Your task to perform on an android device: create a new album in the google photos Image 0: 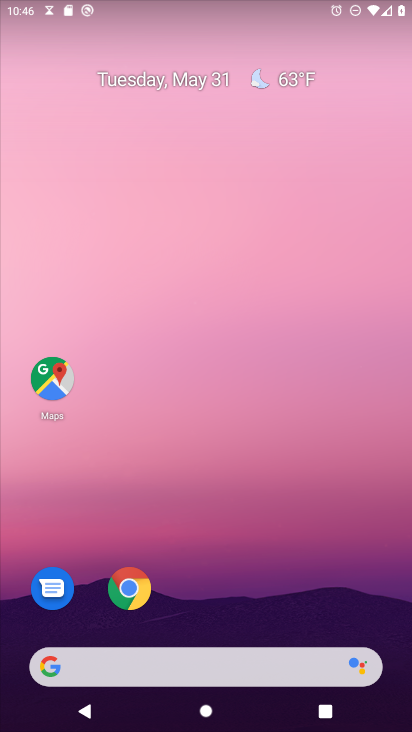
Step 0: drag from (254, 579) to (206, 102)
Your task to perform on an android device: create a new album in the google photos Image 1: 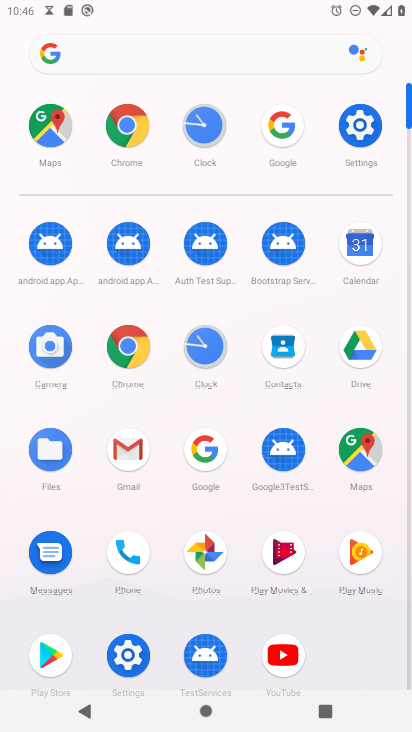
Step 1: click (206, 552)
Your task to perform on an android device: create a new album in the google photos Image 2: 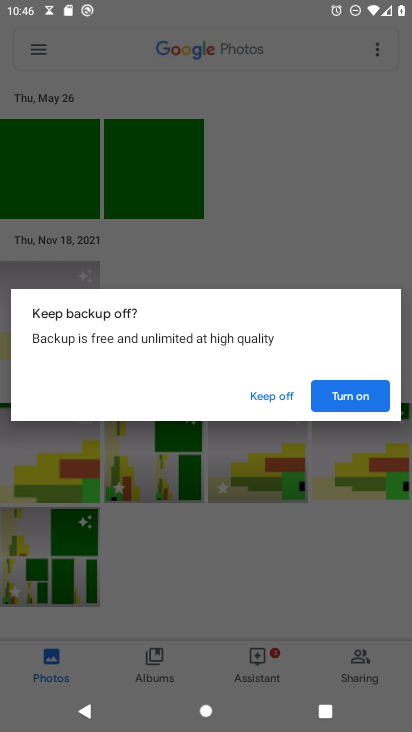
Step 2: click (352, 404)
Your task to perform on an android device: create a new album in the google photos Image 3: 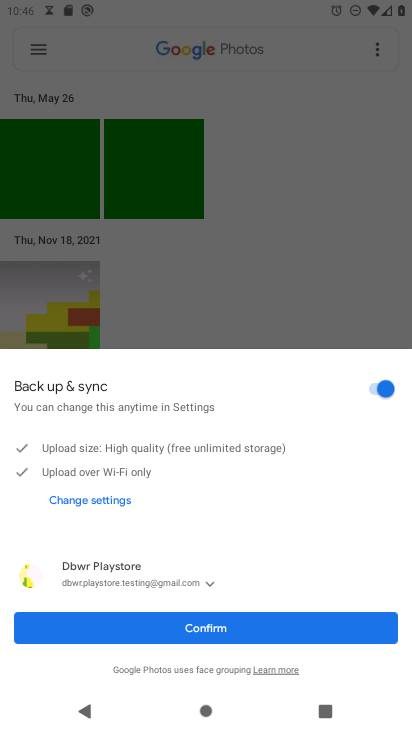
Step 3: click (208, 626)
Your task to perform on an android device: create a new album in the google photos Image 4: 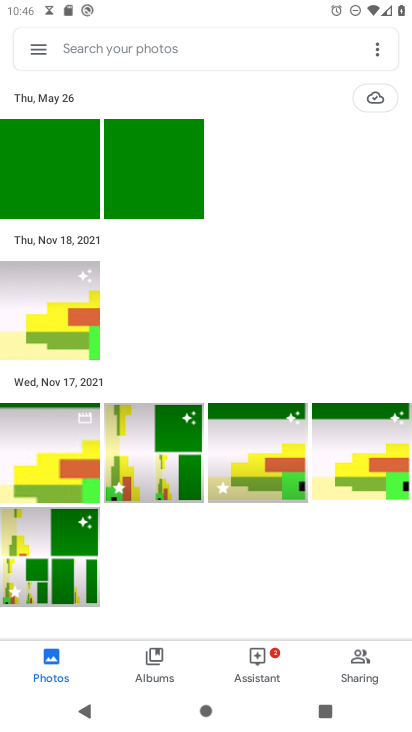
Step 4: click (380, 49)
Your task to perform on an android device: create a new album in the google photos Image 5: 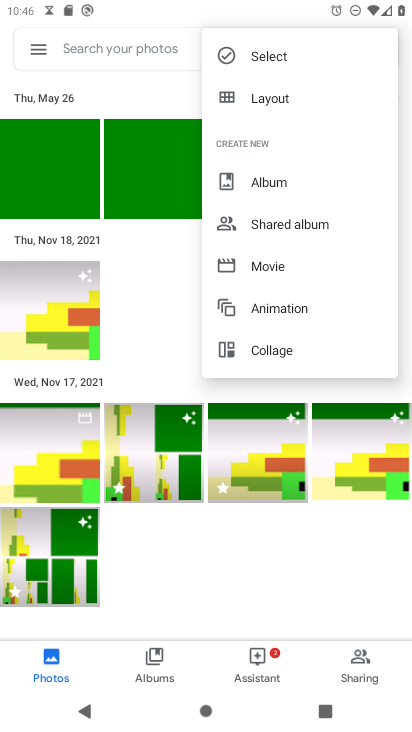
Step 5: click (267, 181)
Your task to perform on an android device: create a new album in the google photos Image 6: 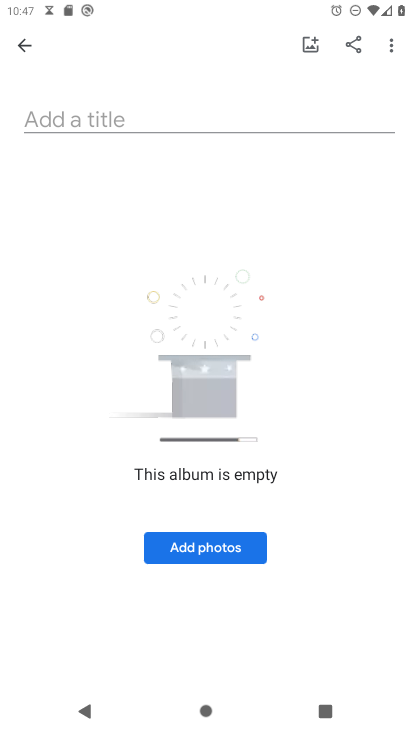
Step 6: click (254, 115)
Your task to perform on an android device: create a new album in the google photos Image 7: 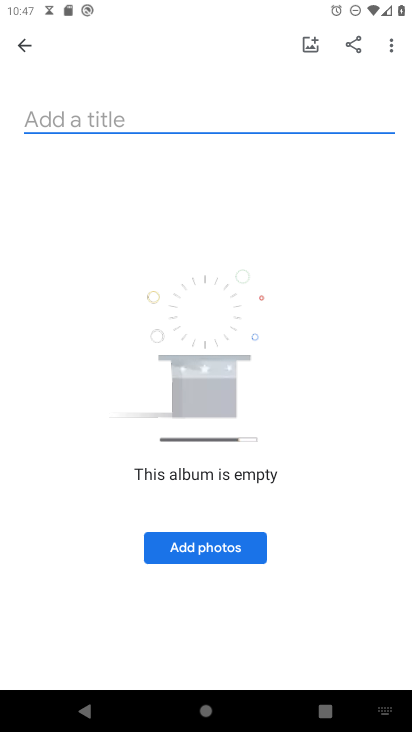
Step 7: type "Sweet"
Your task to perform on an android device: create a new album in the google photos Image 8: 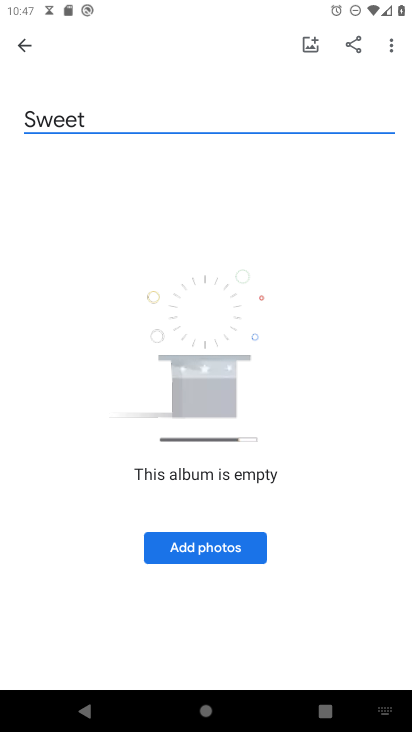
Step 8: click (210, 544)
Your task to perform on an android device: create a new album in the google photos Image 9: 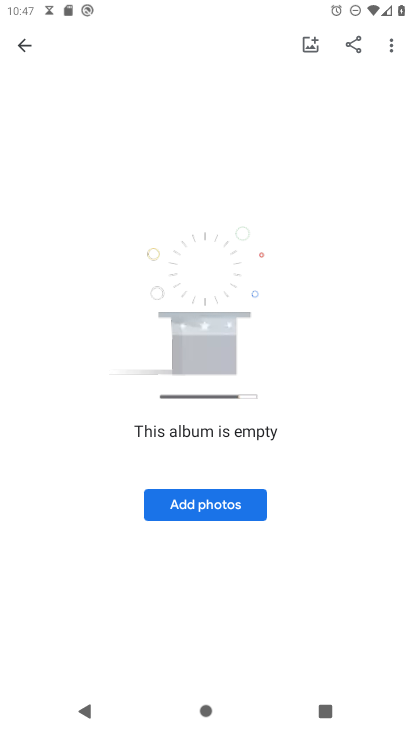
Step 9: click (215, 505)
Your task to perform on an android device: create a new album in the google photos Image 10: 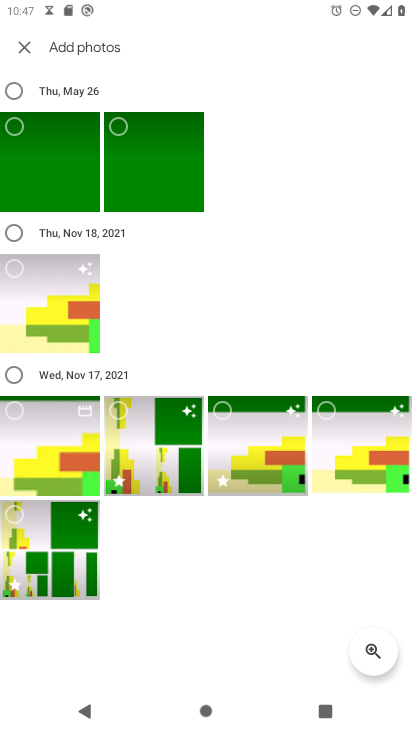
Step 10: click (15, 97)
Your task to perform on an android device: create a new album in the google photos Image 11: 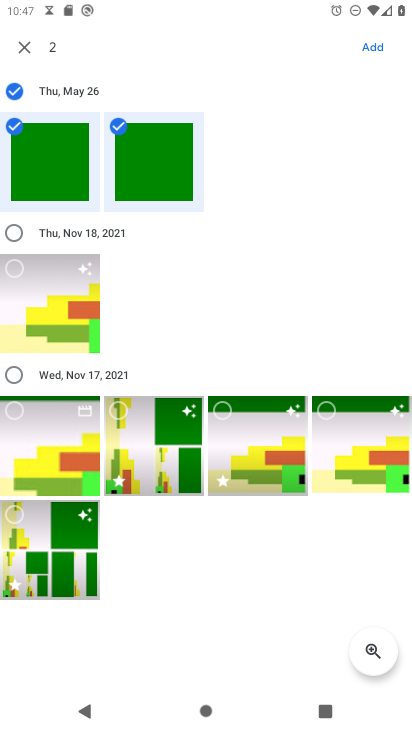
Step 11: click (375, 47)
Your task to perform on an android device: create a new album in the google photos Image 12: 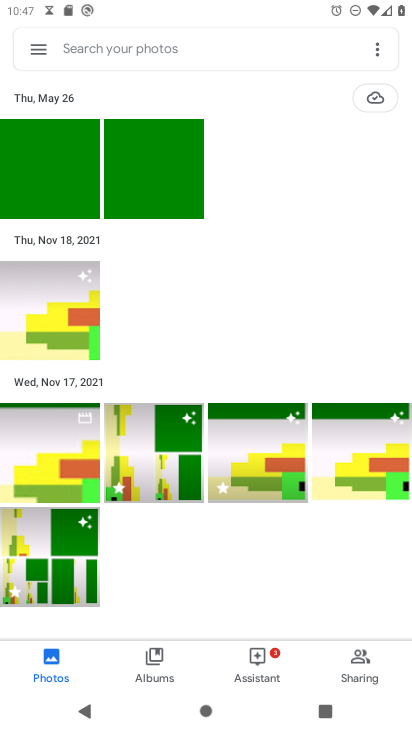
Step 12: task complete